Your task to perform on an android device: Go to display settings Image 0: 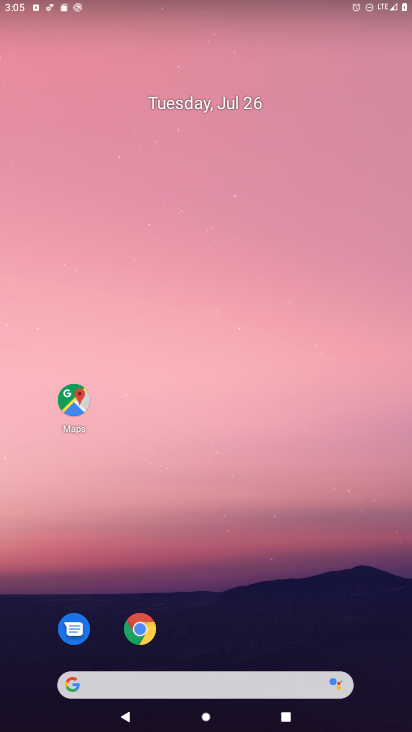
Step 0: drag from (381, 695) to (403, 220)
Your task to perform on an android device: Go to display settings Image 1: 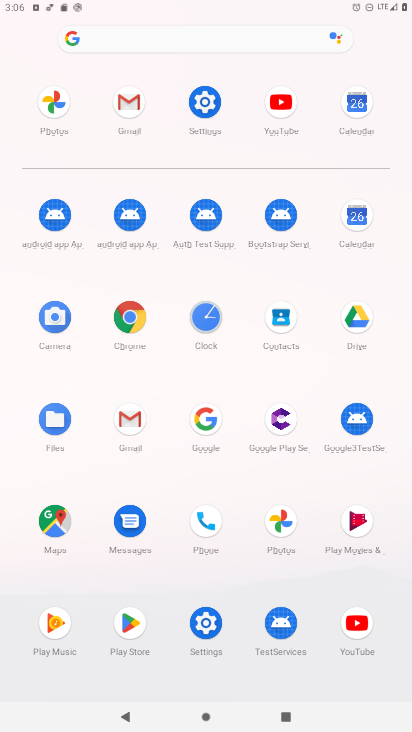
Step 1: click (205, 623)
Your task to perform on an android device: Go to display settings Image 2: 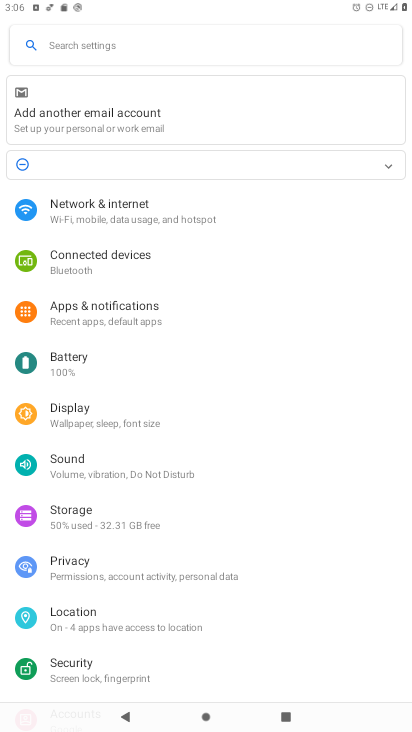
Step 2: click (75, 417)
Your task to perform on an android device: Go to display settings Image 3: 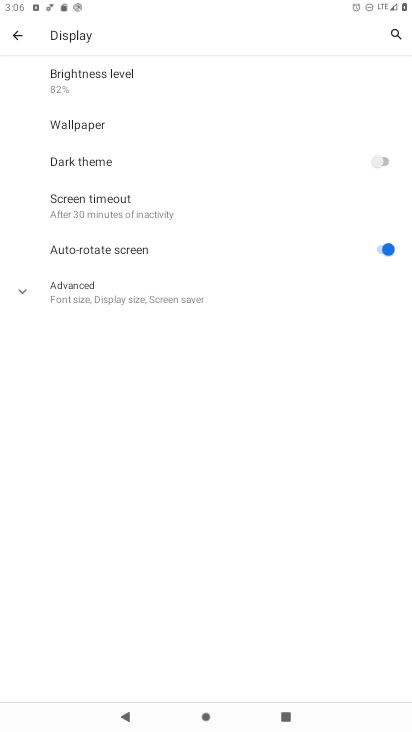
Step 3: click (23, 289)
Your task to perform on an android device: Go to display settings Image 4: 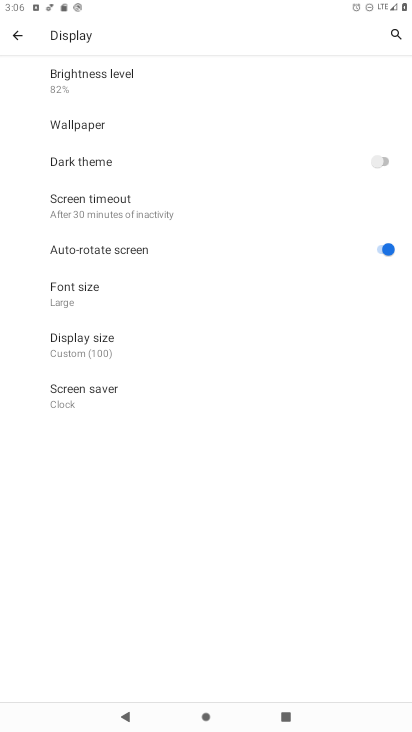
Step 4: task complete